Your task to perform on an android device: Go to Google maps Image 0: 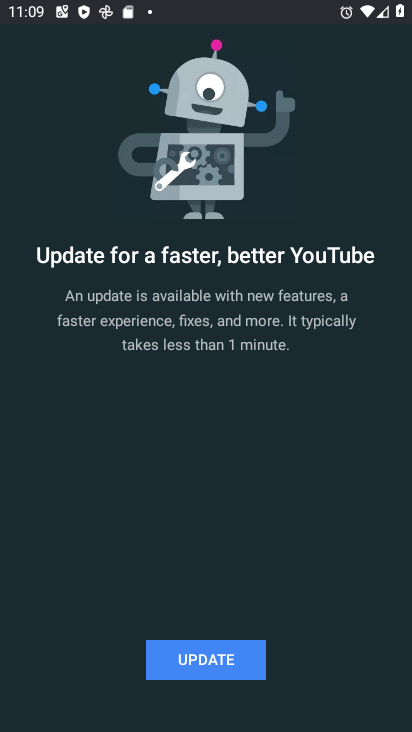
Step 0: press home button
Your task to perform on an android device: Go to Google maps Image 1: 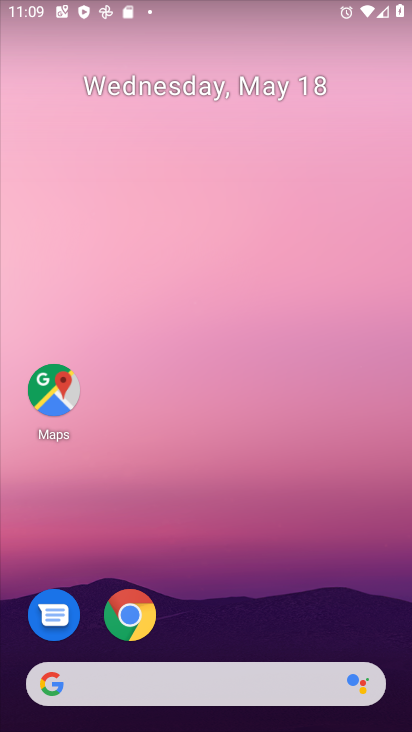
Step 1: click (72, 385)
Your task to perform on an android device: Go to Google maps Image 2: 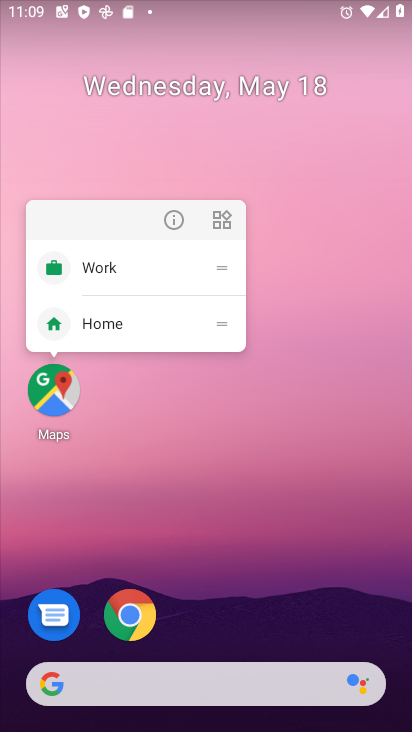
Step 2: click (31, 399)
Your task to perform on an android device: Go to Google maps Image 3: 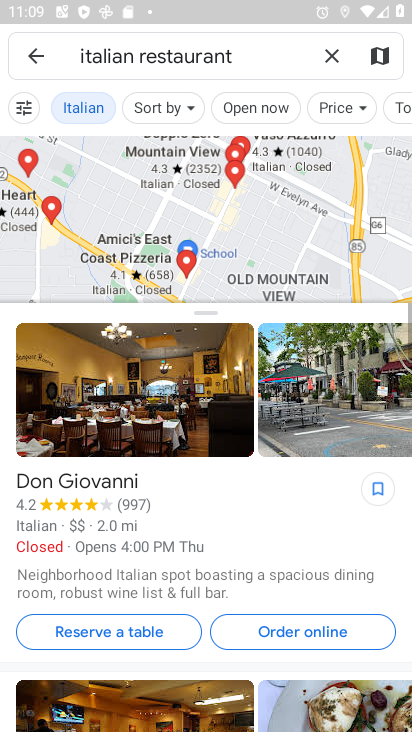
Step 3: drag from (194, 600) to (196, 204)
Your task to perform on an android device: Go to Google maps Image 4: 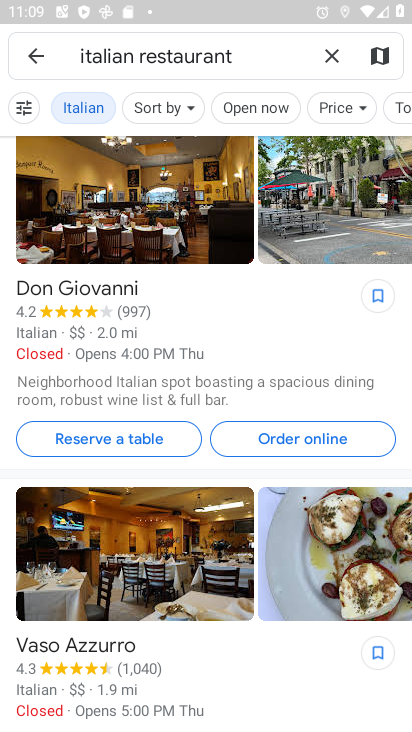
Step 4: click (326, 53)
Your task to perform on an android device: Go to Google maps Image 5: 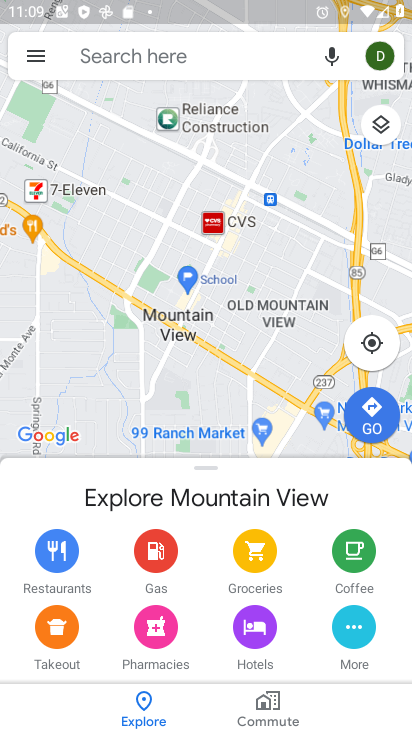
Step 5: task complete